Your task to perform on an android device: Open the Play Movies app and select the watchlist tab. Image 0: 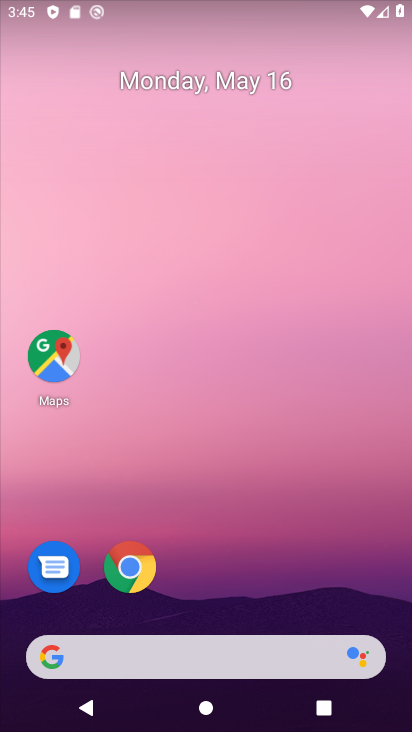
Step 0: drag from (211, 640) to (310, 30)
Your task to perform on an android device: Open the Play Movies app and select the watchlist tab. Image 1: 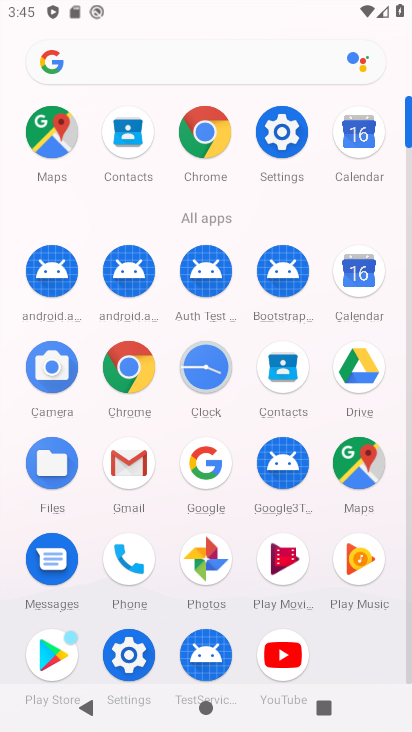
Step 1: click (290, 563)
Your task to perform on an android device: Open the Play Movies app and select the watchlist tab. Image 2: 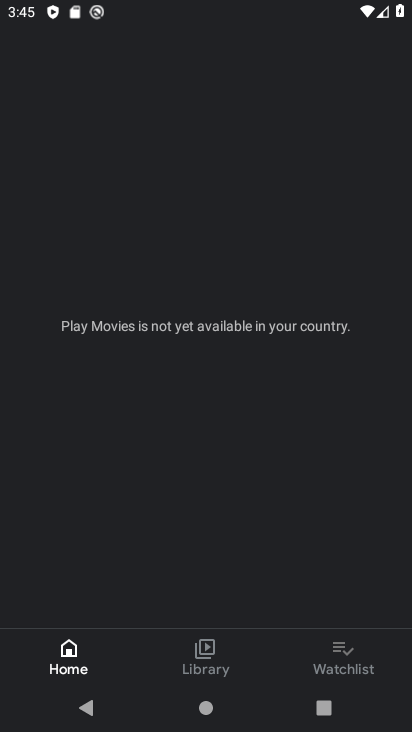
Step 2: click (364, 658)
Your task to perform on an android device: Open the Play Movies app and select the watchlist tab. Image 3: 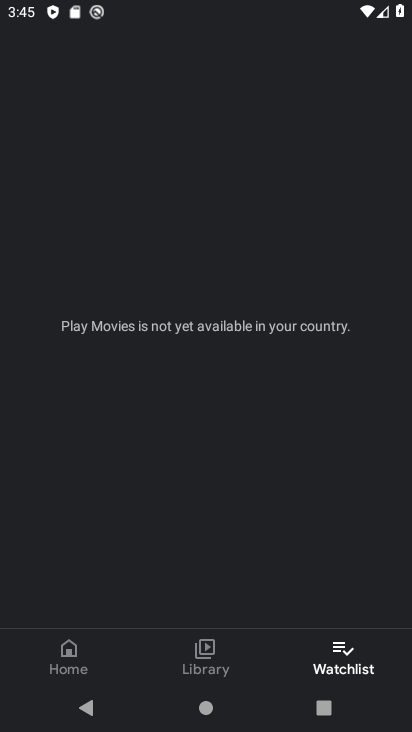
Step 3: task complete